Your task to perform on an android device: Go to settings Image 0: 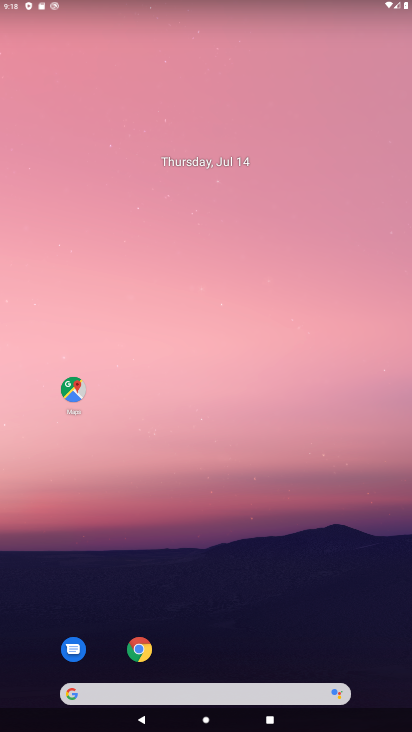
Step 0: drag from (202, 651) to (207, 175)
Your task to perform on an android device: Go to settings Image 1: 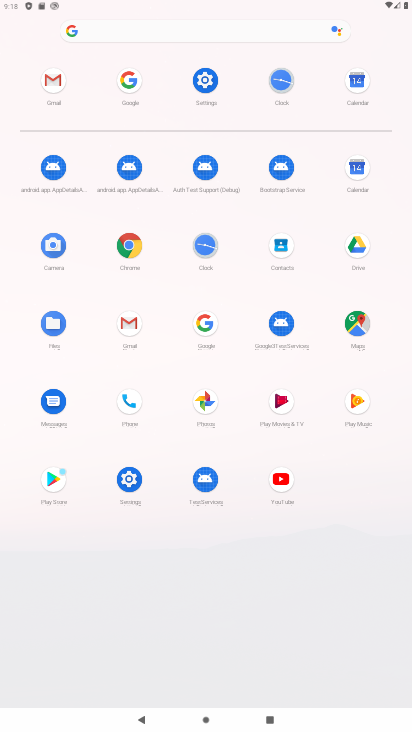
Step 1: click (197, 96)
Your task to perform on an android device: Go to settings Image 2: 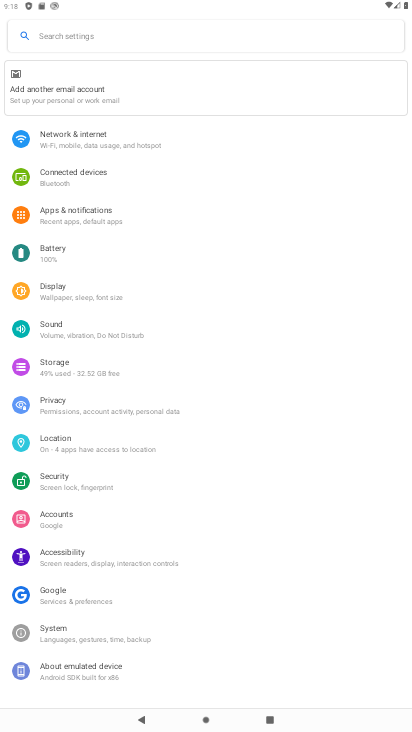
Step 2: task complete